Your task to perform on an android device: Open Maps and search for coffee Image 0: 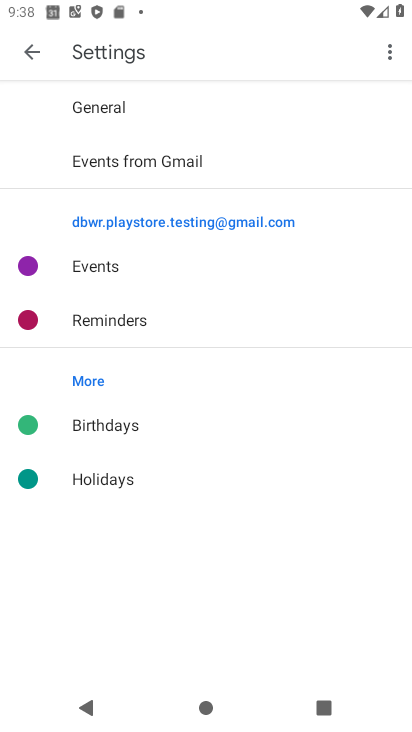
Step 0: press home button
Your task to perform on an android device: Open Maps and search for coffee Image 1: 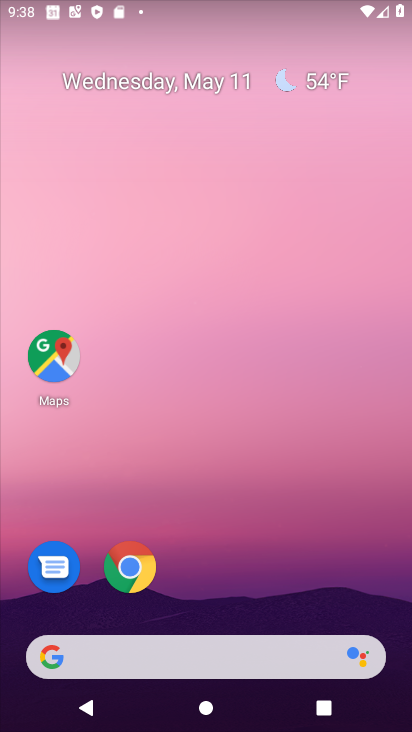
Step 1: click (50, 355)
Your task to perform on an android device: Open Maps and search for coffee Image 2: 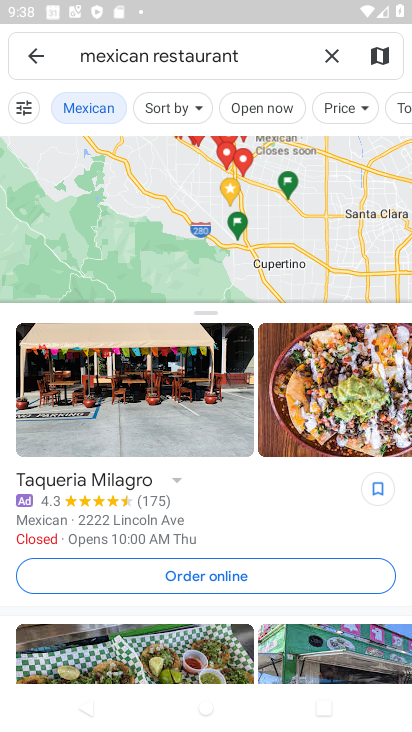
Step 2: click (39, 53)
Your task to perform on an android device: Open Maps and search for coffee Image 3: 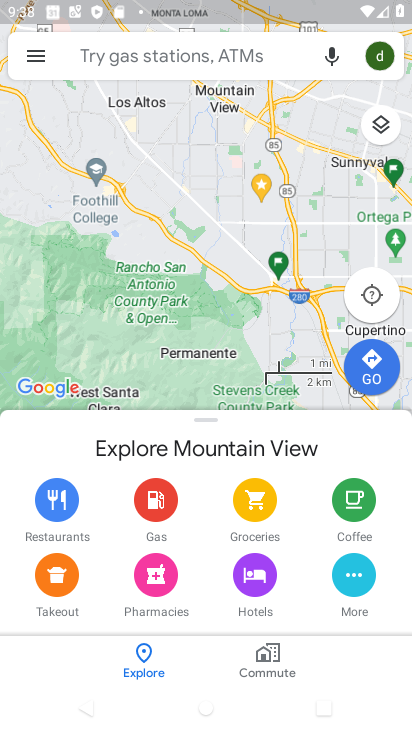
Step 3: click (183, 66)
Your task to perform on an android device: Open Maps and search for coffee Image 4: 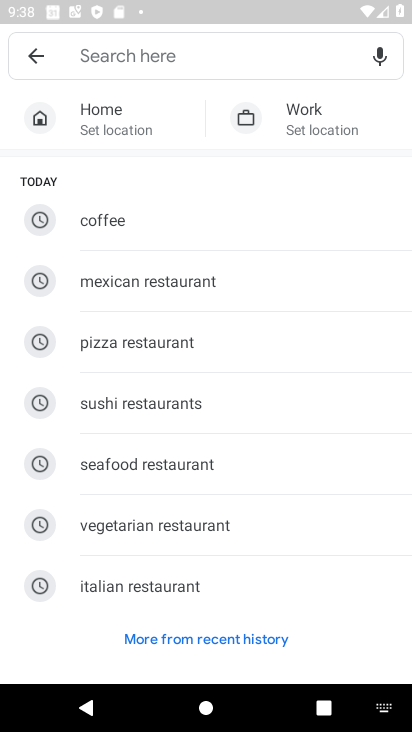
Step 4: type "coffee"
Your task to perform on an android device: Open Maps and search for coffee Image 5: 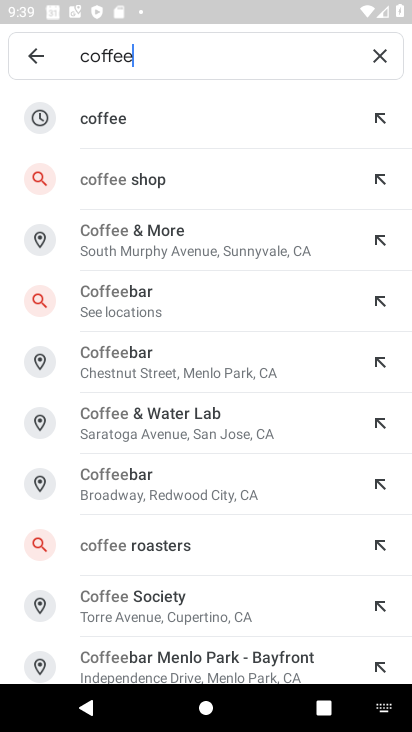
Step 5: click (263, 128)
Your task to perform on an android device: Open Maps and search for coffee Image 6: 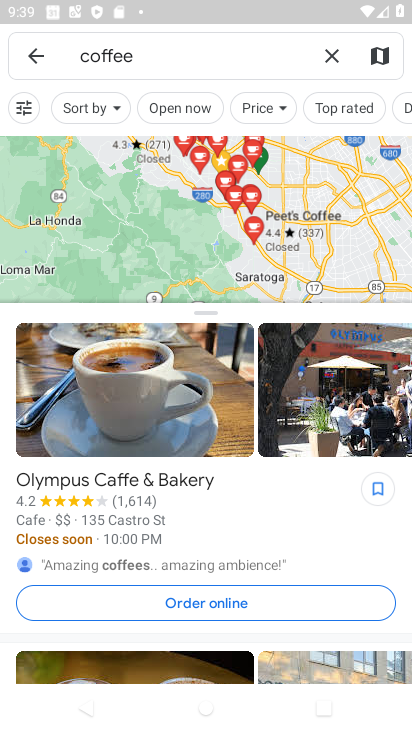
Step 6: task complete